Your task to perform on an android device: Turn on the flashlight Image 0: 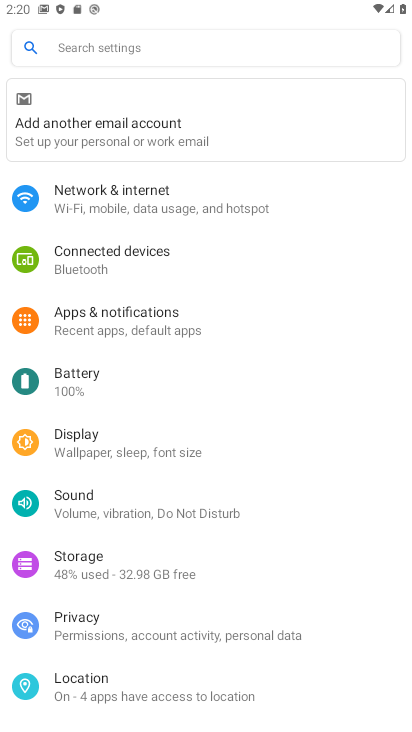
Step 0: press home button
Your task to perform on an android device: Turn on the flashlight Image 1: 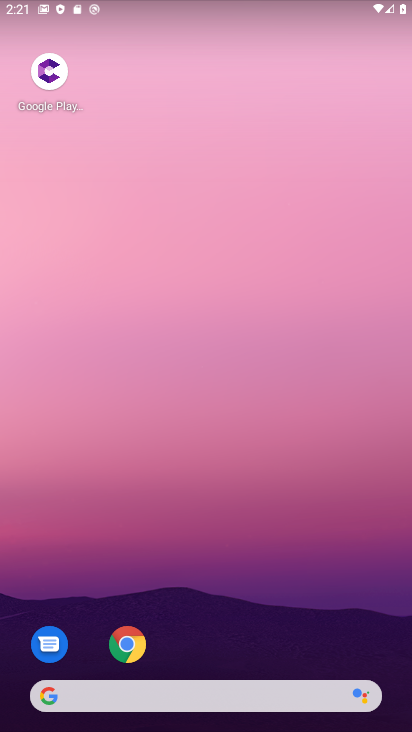
Step 1: task complete